Your task to perform on an android device: check google app version Image 0: 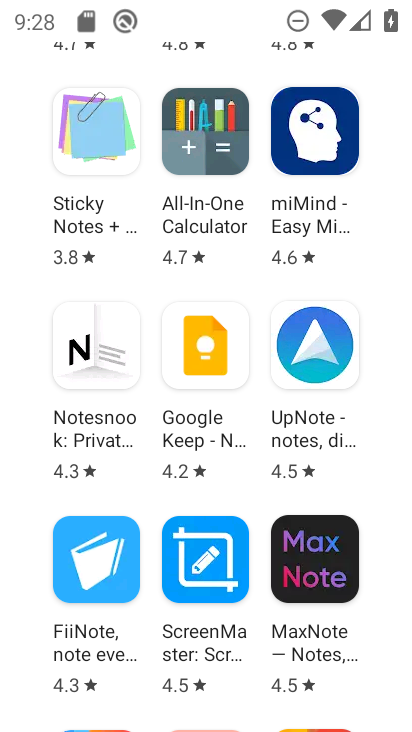
Step 0: press home button
Your task to perform on an android device: check google app version Image 1: 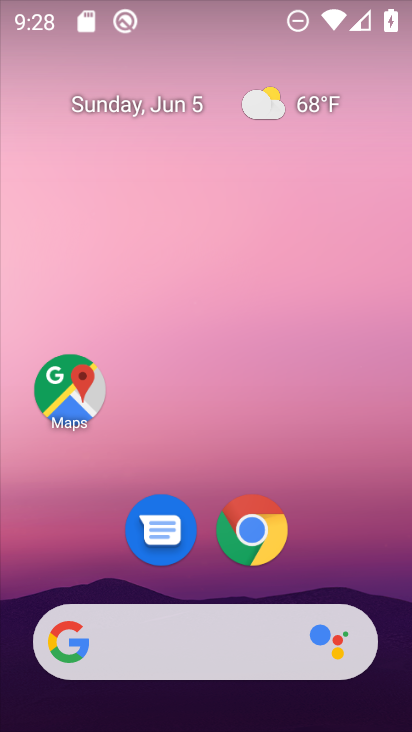
Step 1: click (252, 522)
Your task to perform on an android device: check google app version Image 2: 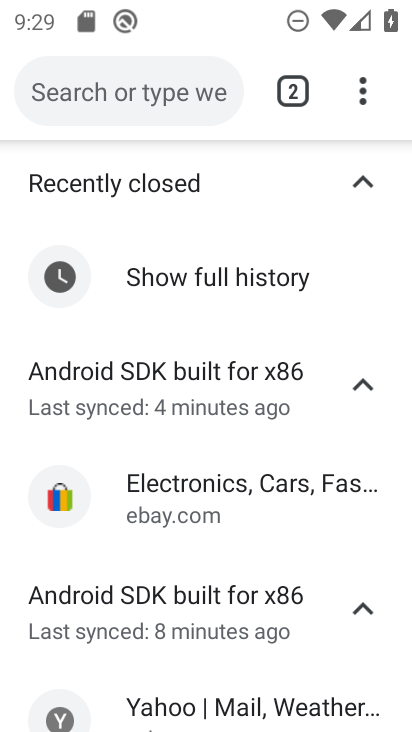
Step 2: click (366, 103)
Your task to perform on an android device: check google app version Image 3: 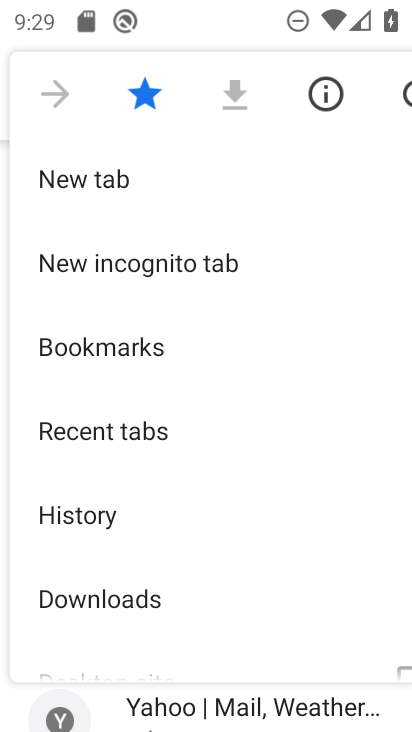
Step 3: drag from (229, 681) to (257, 174)
Your task to perform on an android device: check google app version Image 4: 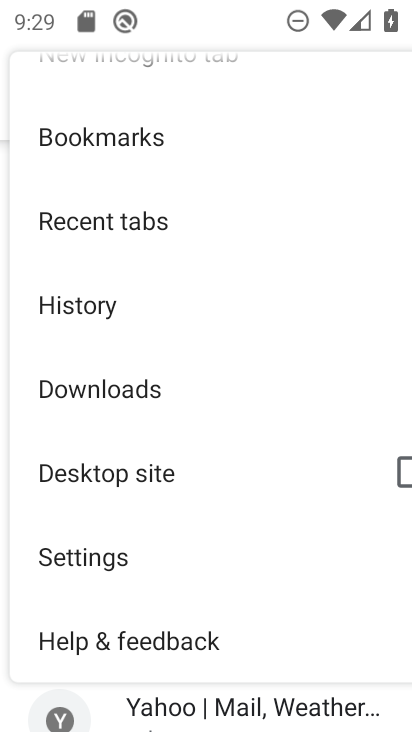
Step 4: click (114, 561)
Your task to perform on an android device: check google app version Image 5: 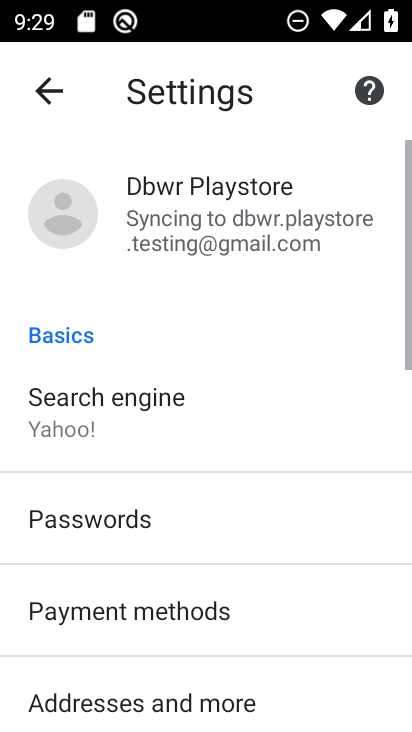
Step 5: drag from (274, 677) to (200, 75)
Your task to perform on an android device: check google app version Image 6: 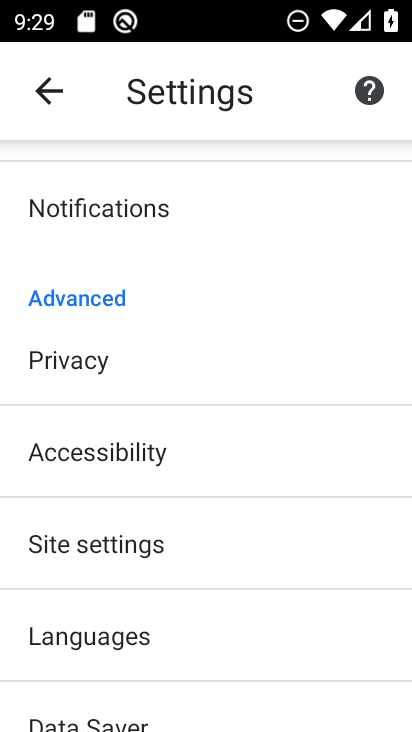
Step 6: drag from (196, 651) to (228, 76)
Your task to perform on an android device: check google app version Image 7: 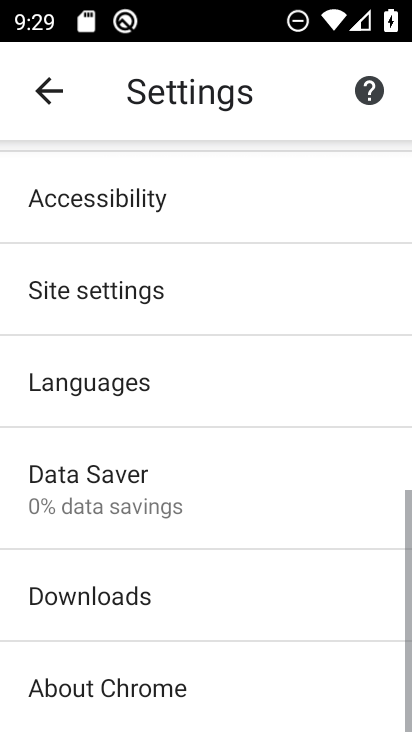
Step 7: click (129, 695)
Your task to perform on an android device: check google app version Image 8: 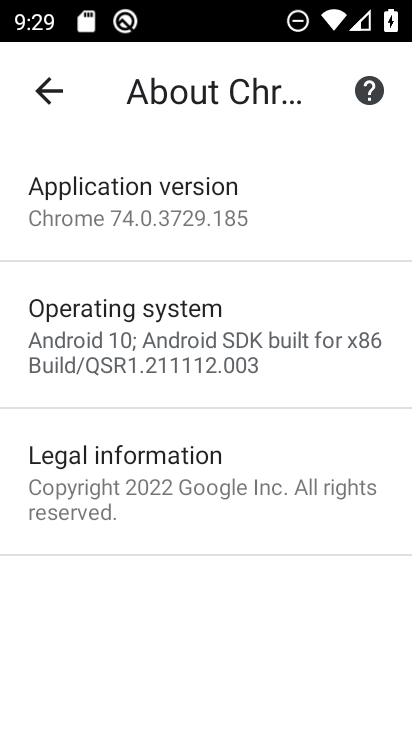
Step 8: task complete